Your task to perform on an android device: Go to internet settings Image 0: 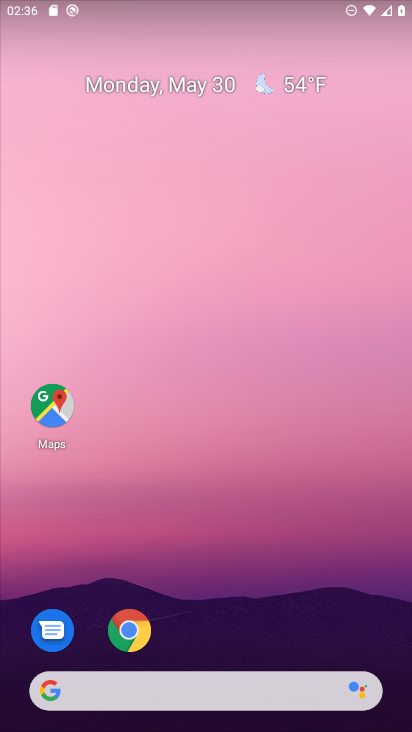
Step 0: press home button
Your task to perform on an android device: Go to internet settings Image 1: 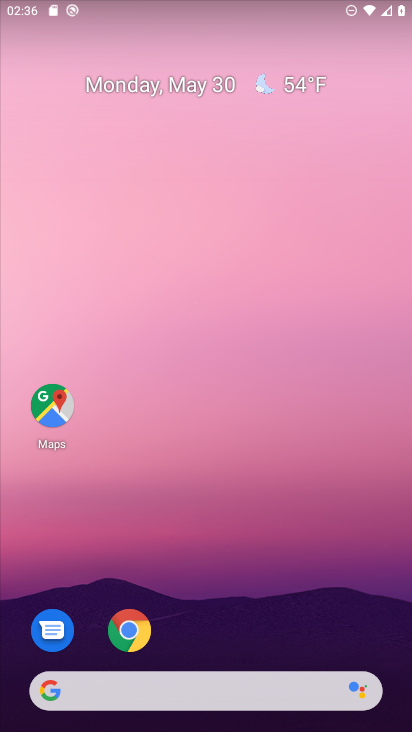
Step 1: drag from (194, 698) to (356, 156)
Your task to perform on an android device: Go to internet settings Image 2: 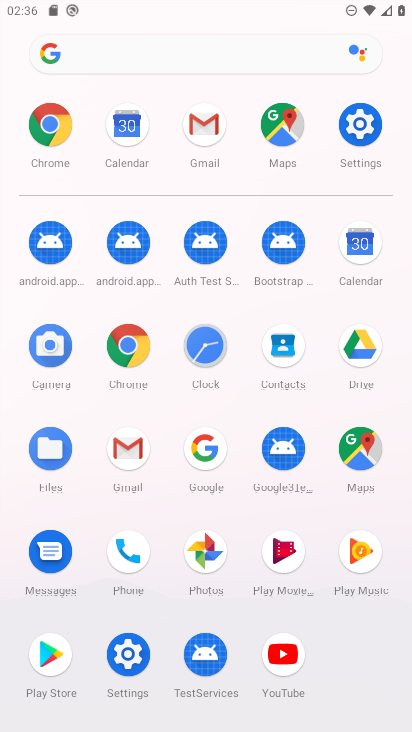
Step 2: click (361, 140)
Your task to perform on an android device: Go to internet settings Image 3: 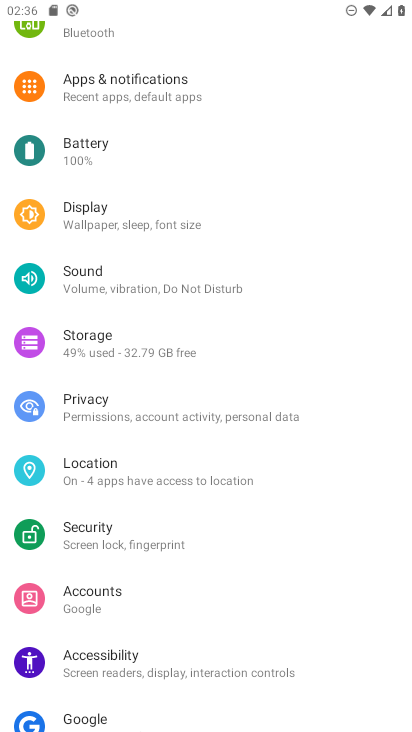
Step 3: drag from (295, 240) to (194, 703)
Your task to perform on an android device: Go to internet settings Image 4: 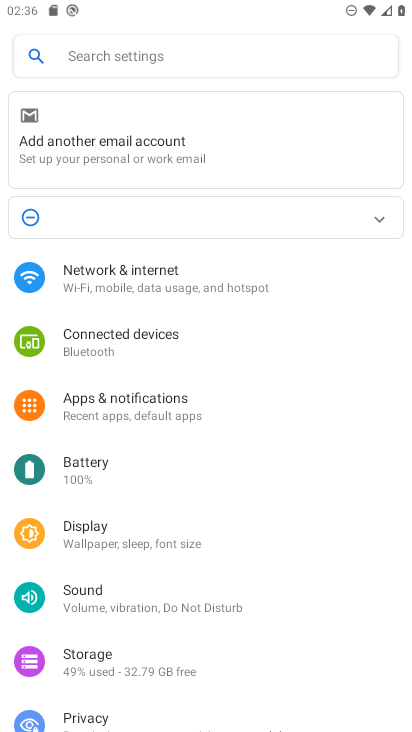
Step 4: click (159, 274)
Your task to perform on an android device: Go to internet settings Image 5: 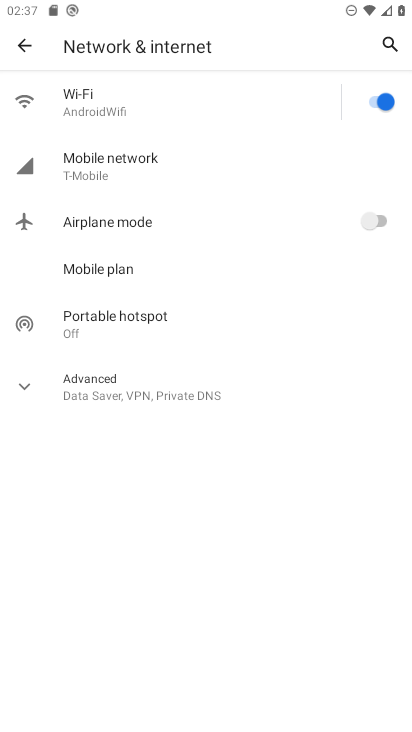
Step 5: task complete